Your task to perform on an android device: Open calendar and show me the third week of next month Image 0: 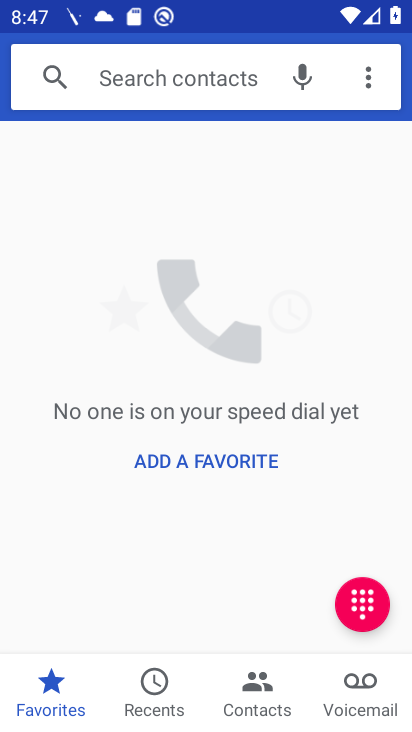
Step 0: press home button
Your task to perform on an android device: Open calendar and show me the third week of next month Image 1: 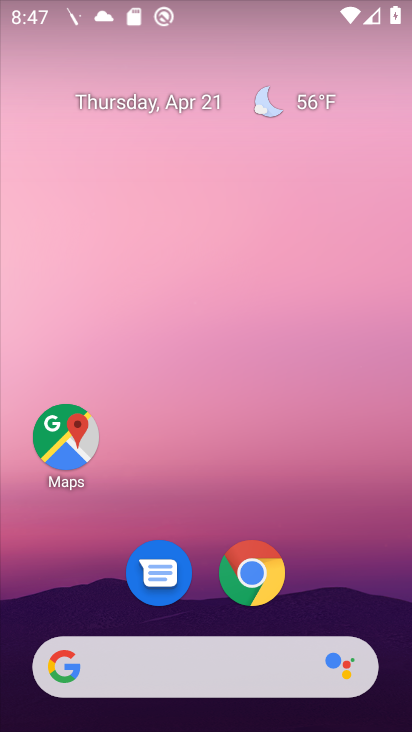
Step 1: drag from (197, 506) to (294, 52)
Your task to perform on an android device: Open calendar and show me the third week of next month Image 2: 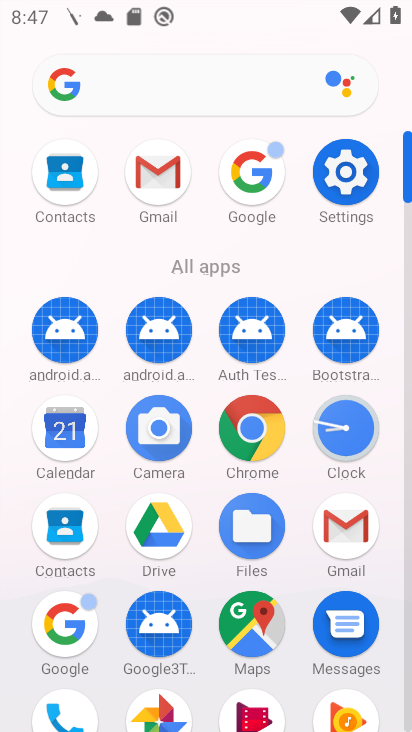
Step 2: click (68, 427)
Your task to perform on an android device: Open calendar and show me the third week of next month Image 3: 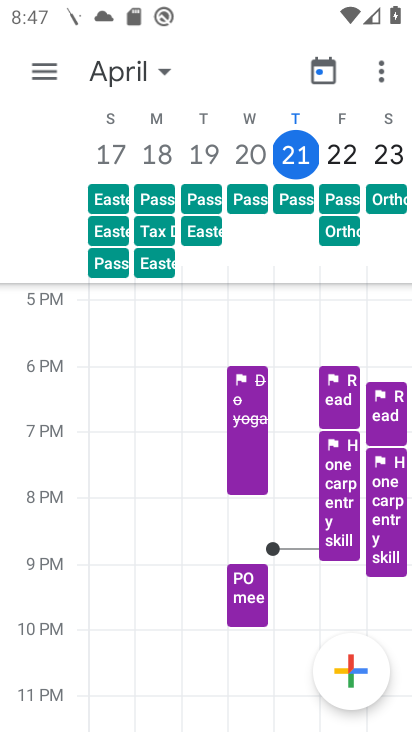
Step 3: click (160, 71)
Your task to perform on an android device: Open calendar and show me the third week of next month Image 4: 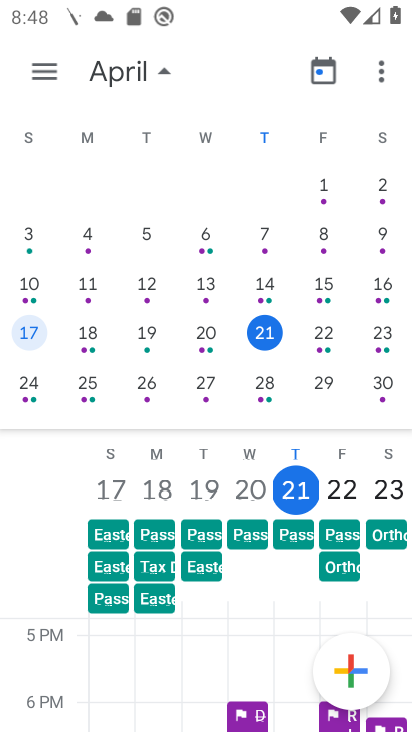
Step 4: drag from (342, 307) to (0, 312)
Your task to perform on an android device: Open calendar and show me the third week of next month Image 5: 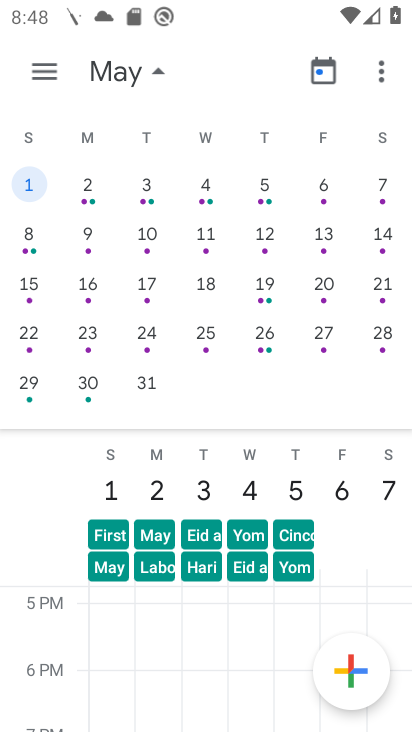
Step 5: click (87, 288)
Your task to perform on an android device: Open calendar and show me the third week of next month Image 6: 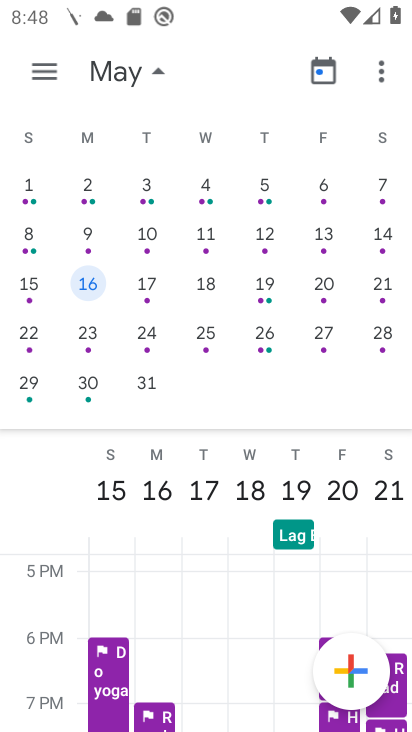
Step 6: click (51, 62)
Your task to perform on an android device: Open calendar and show me the third week of next month Image 7: 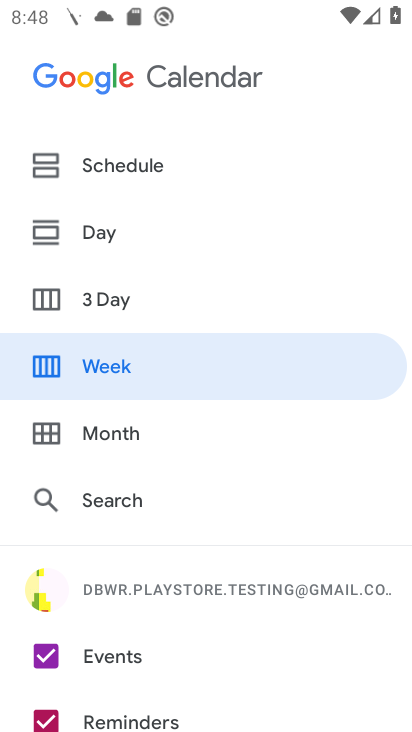
Step 7: click (98, 369)
Your task to perform on an android device: Open calendar and show me the third week of next month Image 8: 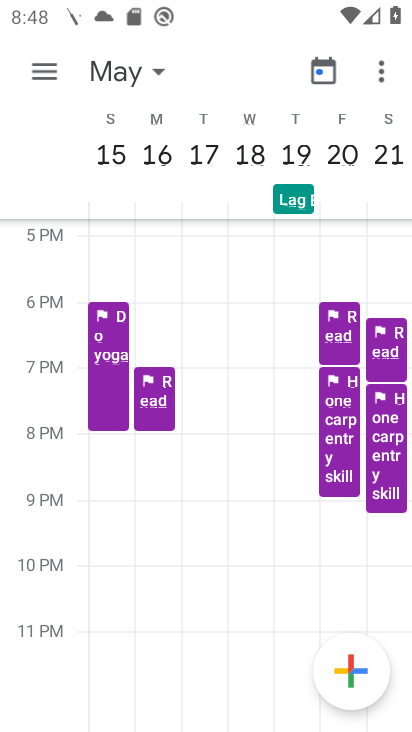
Step 8: task complete